Your task to perform on an android device: add a contact Image 0: 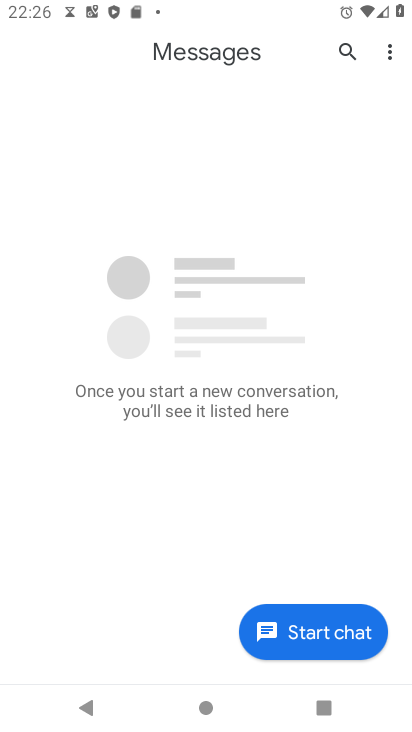
Step 0: press home button
Your task to perform on an android device: add a contact Image 1: 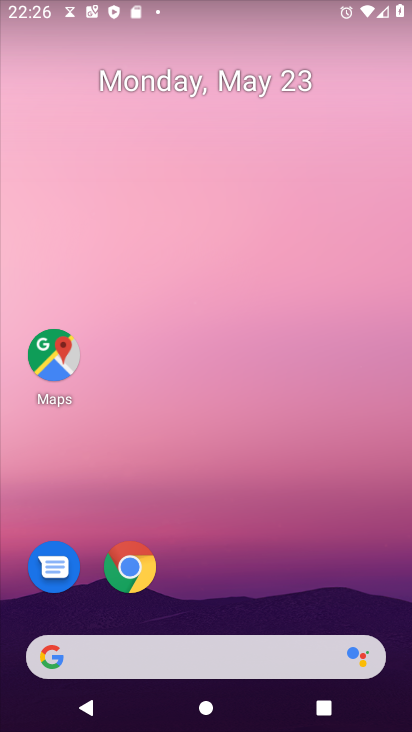
Step 1: drag from (227, 550) to (242, 270)
Your task to perform on an android device: add a contact Image 2: 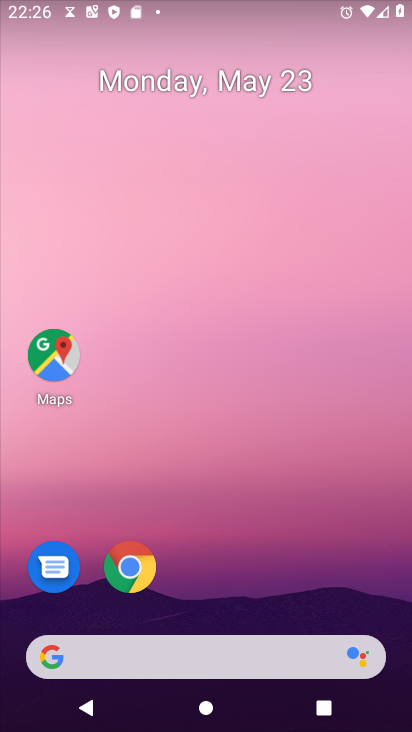
Step 2: drag from (245, 572) to (258, 204)
Your task to perform on an android device: add a contact Image 3: 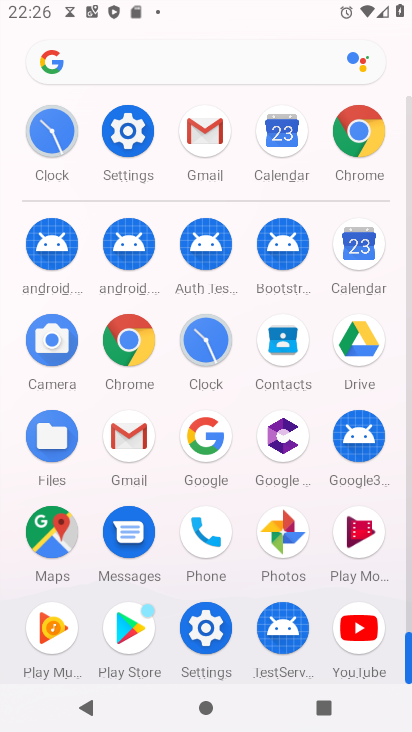
Step 3: click (208, 521)
Your task to perform on an android device: add a contact Image 4: 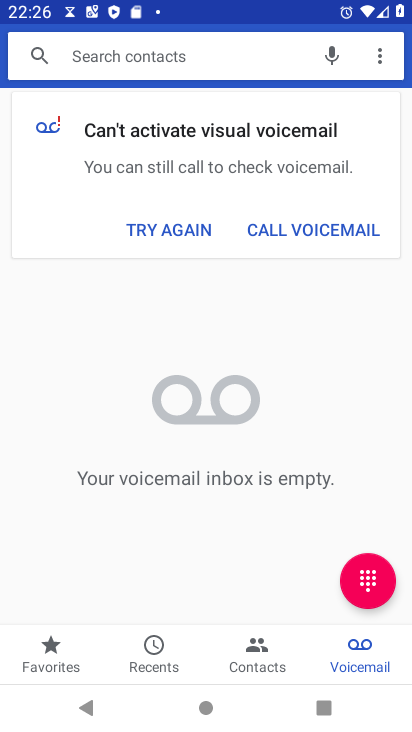
Step 4: click (240, 639)
Your task to perform on an android device: add a contact Image 5: 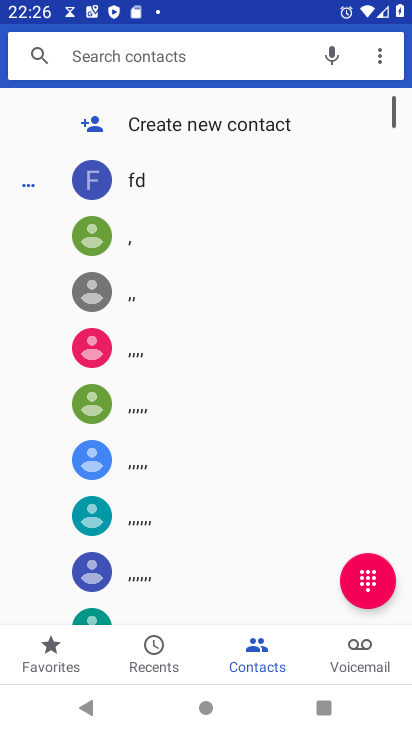
Step 5: click (172, 118)
Your task to perform on an android device: add a contact Image 6: 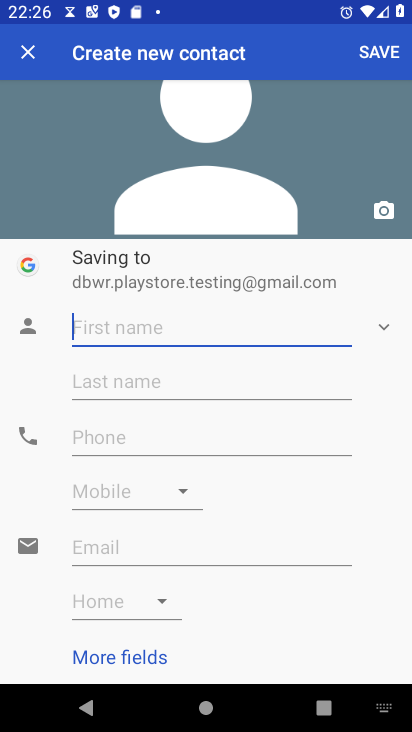
Step 6: click (190, 321)
Your task to perform on an android device: add a contact Image 7: 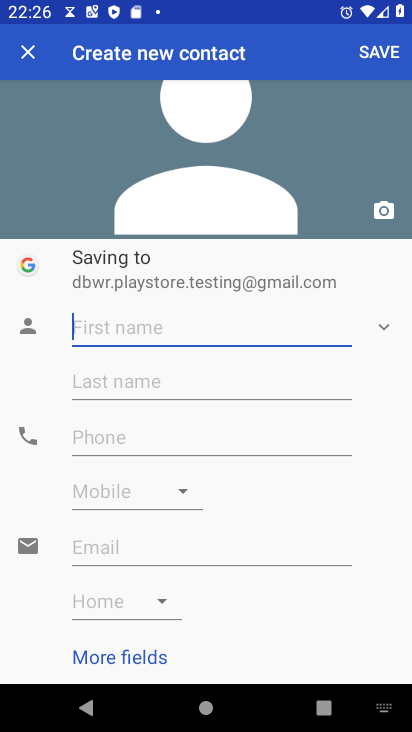
Step 7: type ""
Your task to perform on an android device: add a contact Image 8: 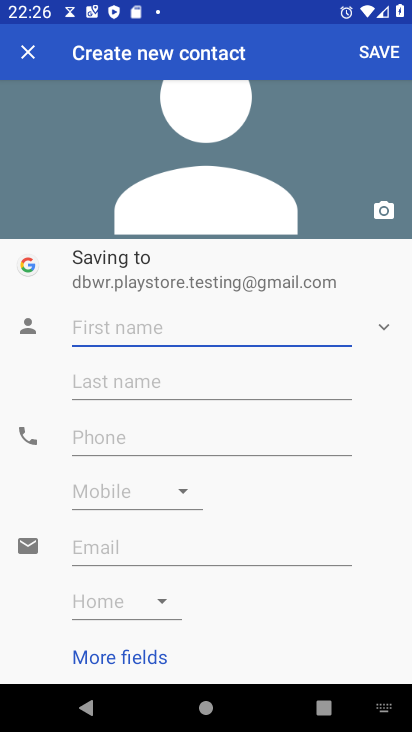
Step 8: type "uhuhuhrhrhr"
Your task to perform on an android device: add a contact Image 9: 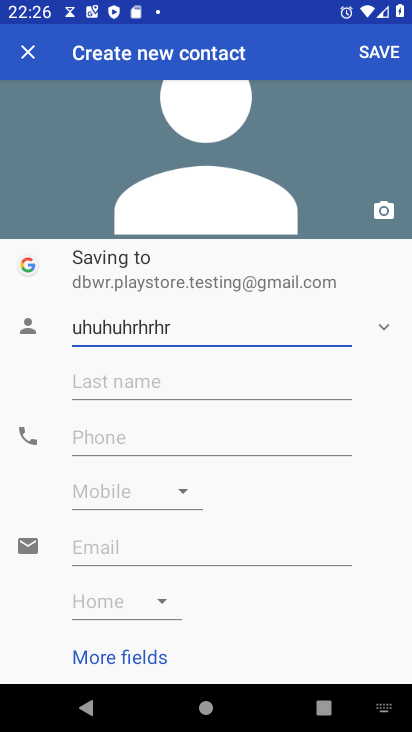
Step 9: click (193, 425)
Your task to perform on an android device: add a contact Image 10: 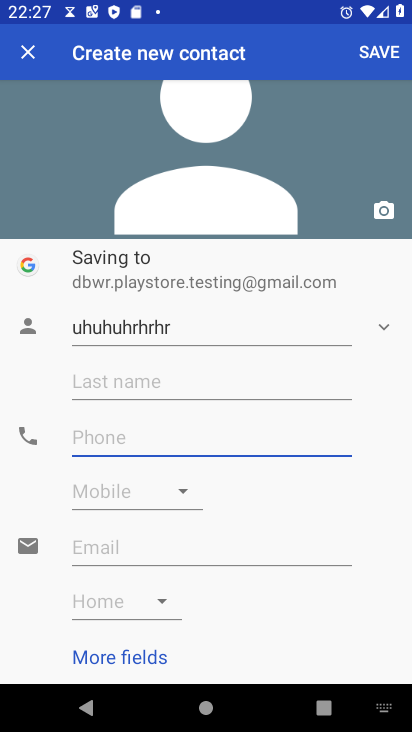
Step 10: type "12345678990"
Your task to perform on an android device: add a contact Image 11: 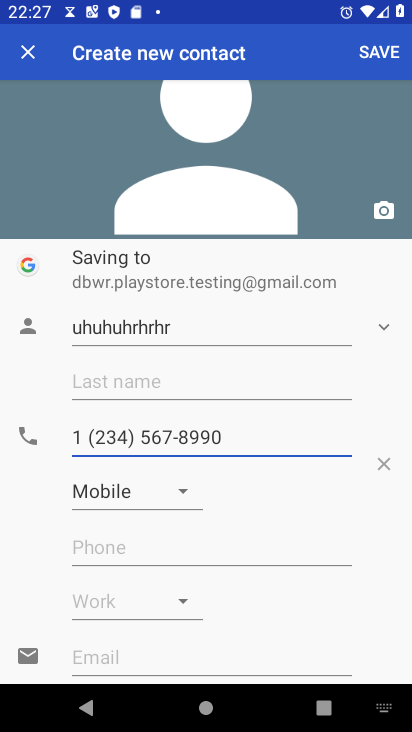
Step 11: click (377, 63)
Your task to perform on an android device: add a contact Image 12: 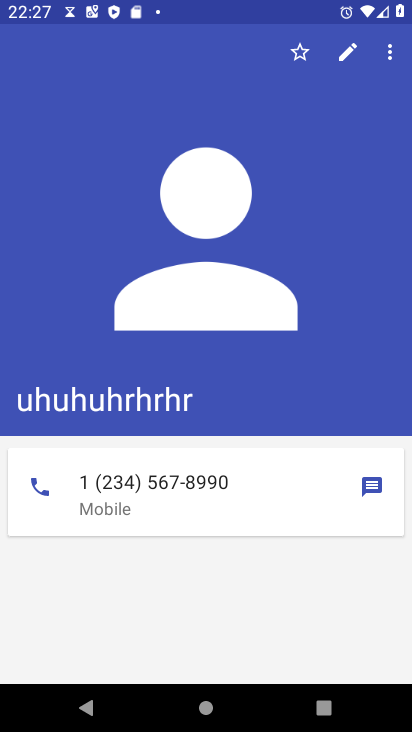
Step 12: task complete